Your task to perform on an android device: open chrome and create a bookmark for the current page Image 0: 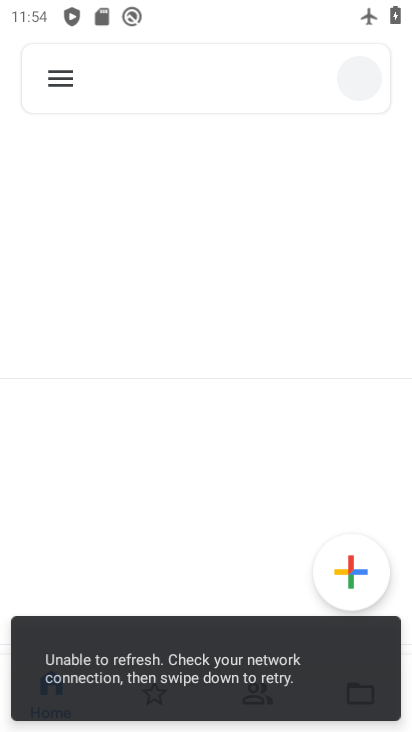
Step 0: drag from (289, 586) to (293, 175)
Your task to perform on an android device: open chrome and create a bookmark for the current page Image 1: 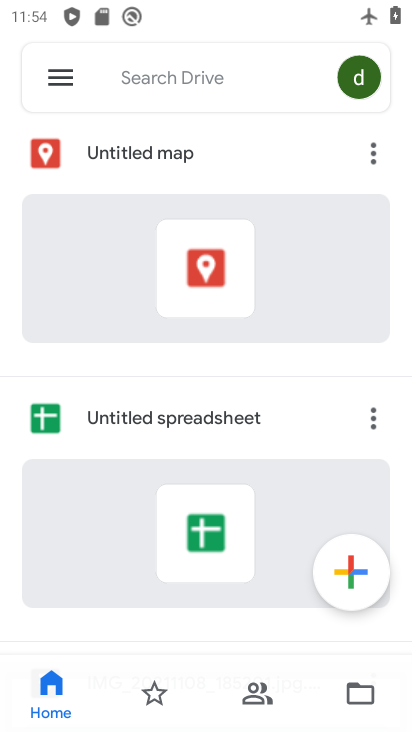
Step 1: press home button
Your task to perform on an android device: open chrome and create a bookmark for the current page Image 2: 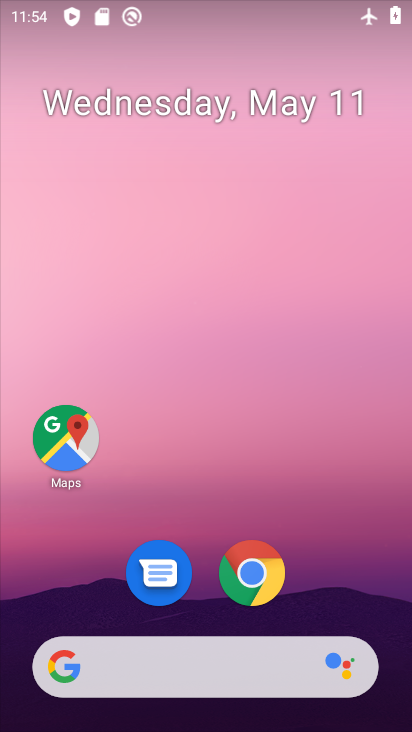
Step 2: click (244, 571)
Your task to perform on an android device: open chrome and create a bookmark for the current page Image 3: 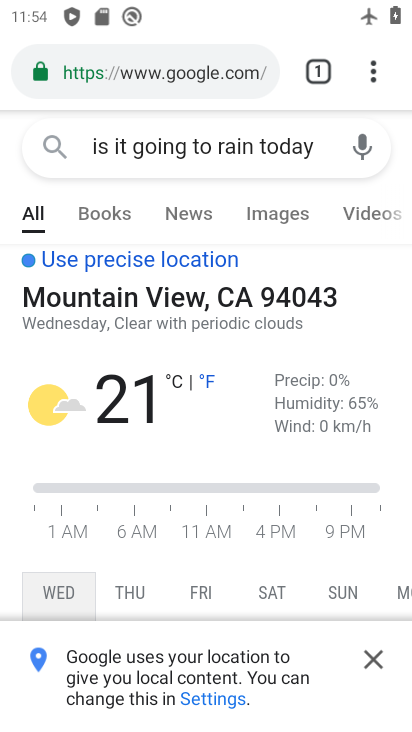
Step 3: task complete